Your task to perform on an android device: toggle pop-ups in chrome Image 0: 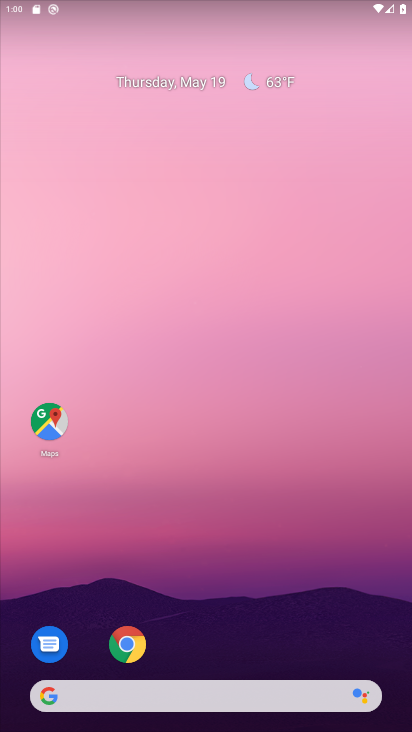
Step 0: click (126, 644)
Your task to perform on an android device: toggle pop-ups in chrome Image 1: 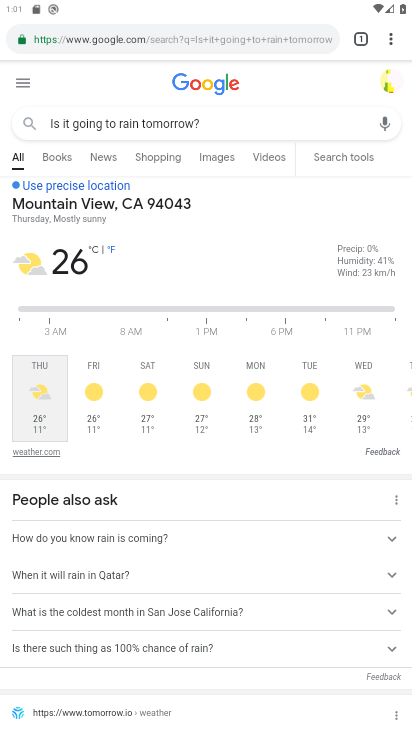
Step 1: click (394, 38)
Your task to perform on an android device: toggle pop-ups in chrome Image 2: 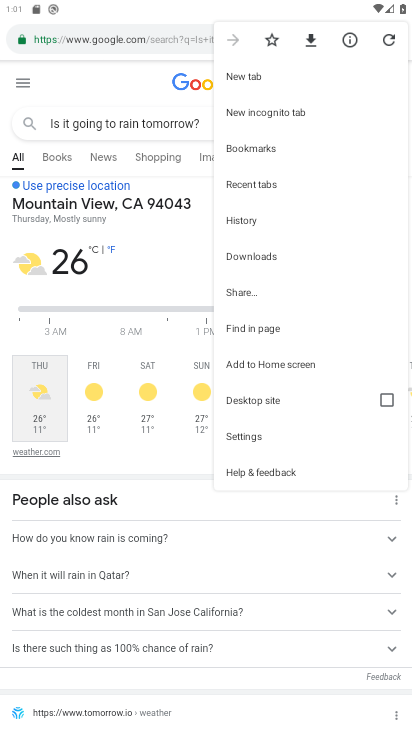
Step 2: click (262, 433)
Your task to perform on an android device: toggle pop-ups in chrome Image 3: 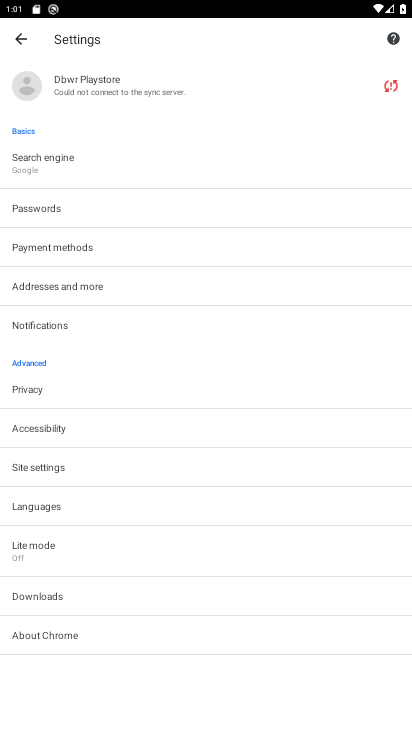
Step 3: click (48, 466)
Your task to perform on an android device: toggle pop-ups in chrome Image 4: 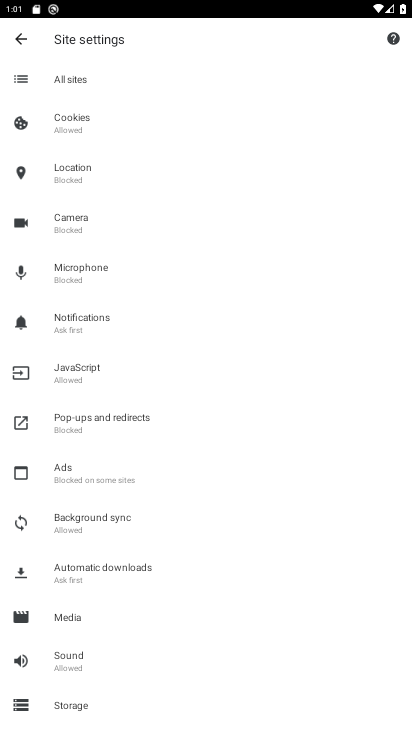
Step 4: click (89, 418)
Your task to perform on an android device: toggle pop-ups in chrome Image 5: 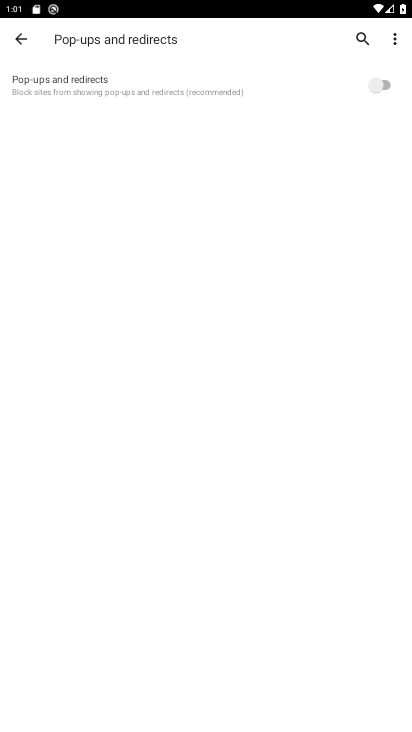
Step 5: click (376, 89)
Your task to perform on an android device: toggle pop-ups in chrome Image 6: 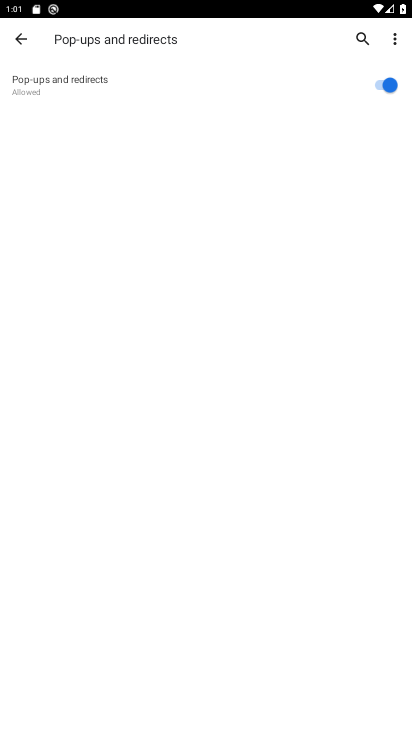
Step 6: task complete